Your task to perform on an android device: Turn on the flashlight Image 0: 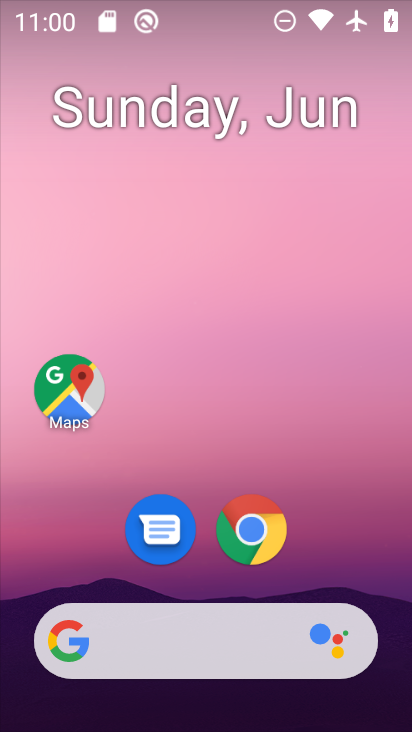
Step 0: drag from (229, 12) to (242, 415)
Your task to perform on an android device: Turn on the flashlight Image 1: 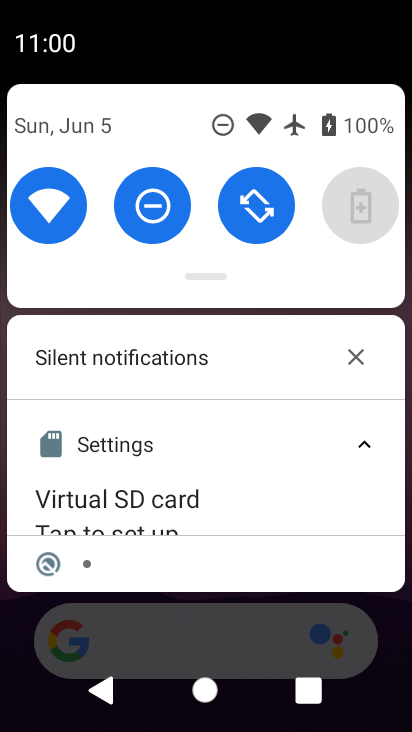
Step 1: drag from (208, 277) to (213, 533)
Your task to perform on an android device: Turn on the flashlight Image 2: 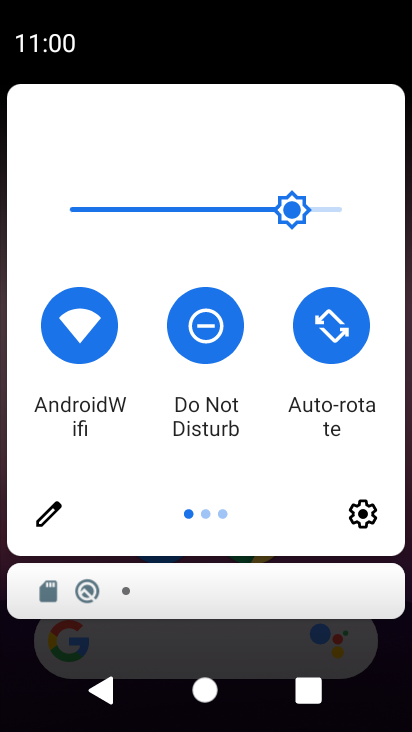
Step 2: click (42, 510)
Your task to perform on an android device: Turn on the flashlight Image 3: 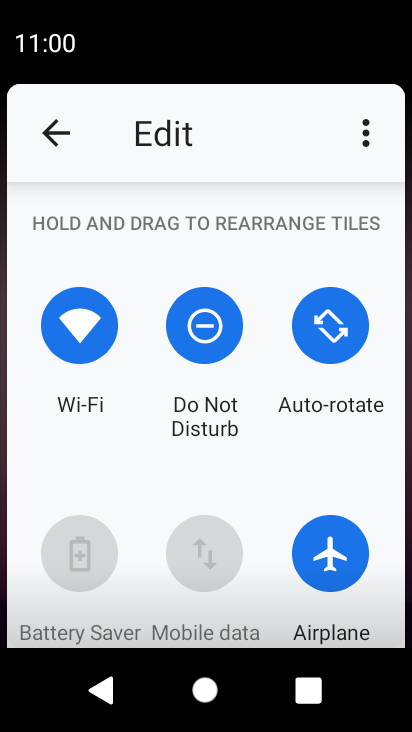
Step 3: task complete